Your task to perform on an android device: Open wifi settings Image 0: 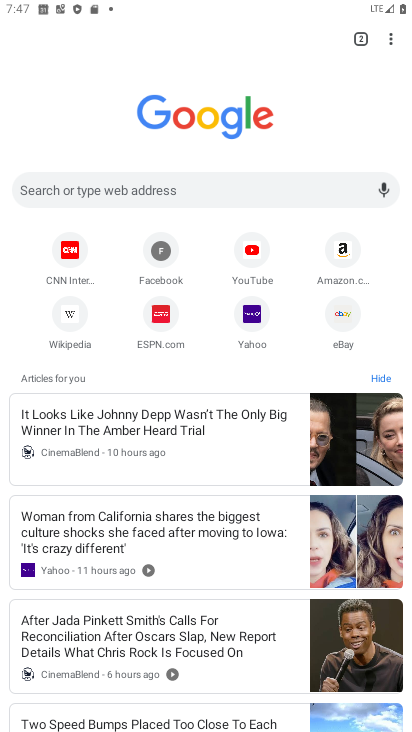
Step 0: press home button
Your task to perform on an android device: Open wifi settings Image 1: 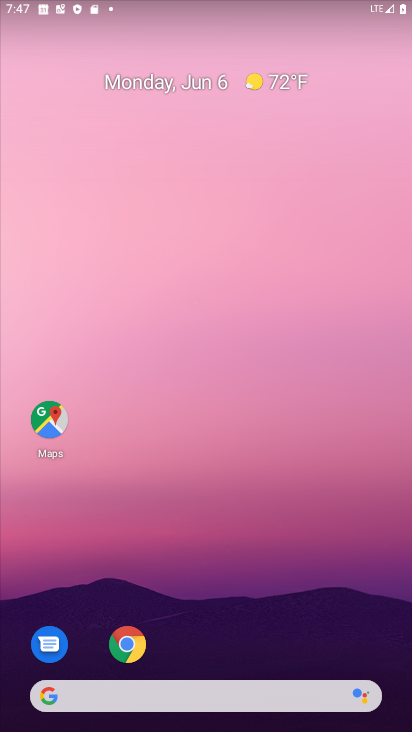
Step 1: drag from (260, 710) to (219, 261)
Your task to perform on an android device: Open wifi settings Image 2: 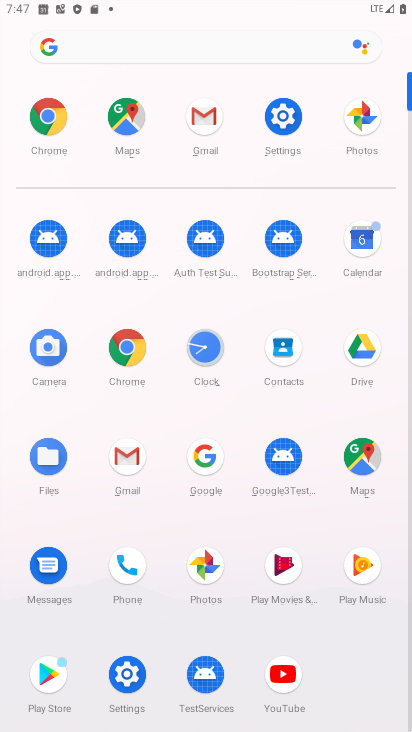
Step 2: click (277, 122)
Your task to perform on an android device: Open wifi settings Image 3: 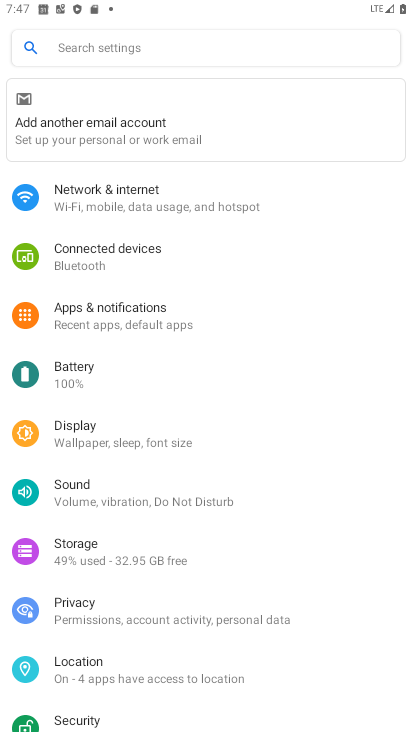
Step 3: click (117, 190)
Your task to perform on an android device: Open wifi settings Image 4: 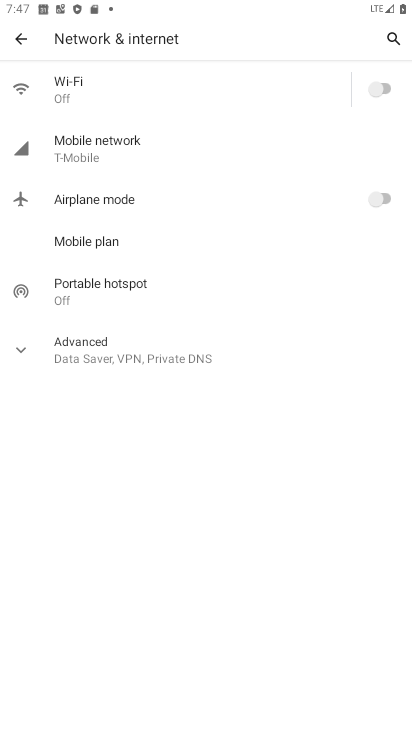
Step 4: click (125, 91)
Your task to perform on an android device: Open wifi settings Image 5: 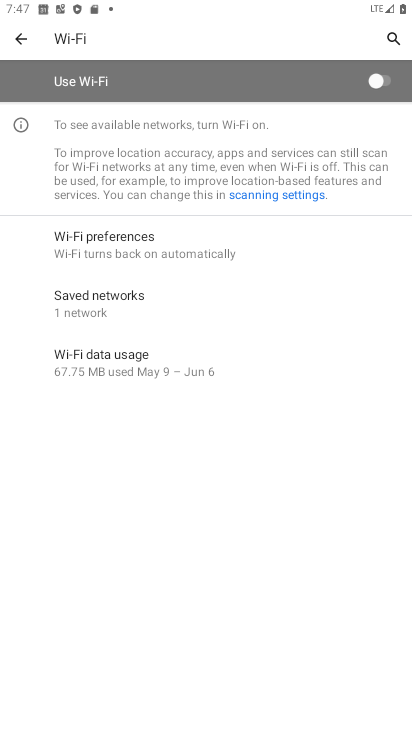
Step 5: press home button
Your task to perform on an android device: Open wifi settings Image 6: 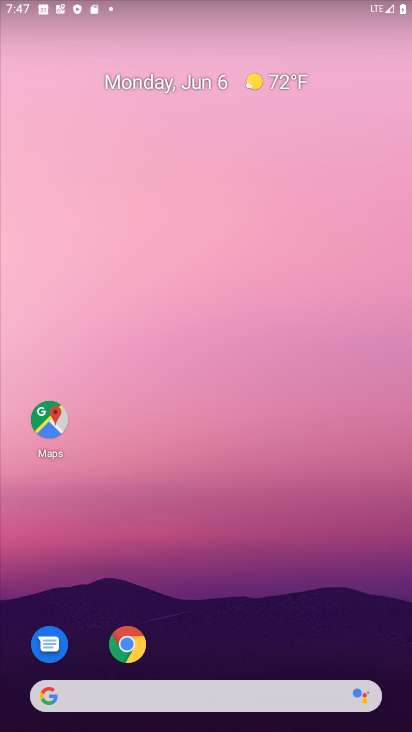
Step 6: drag from (246, 719) to (140, 246)
Your task to perform on an android device: Open wifi settings Image 7: 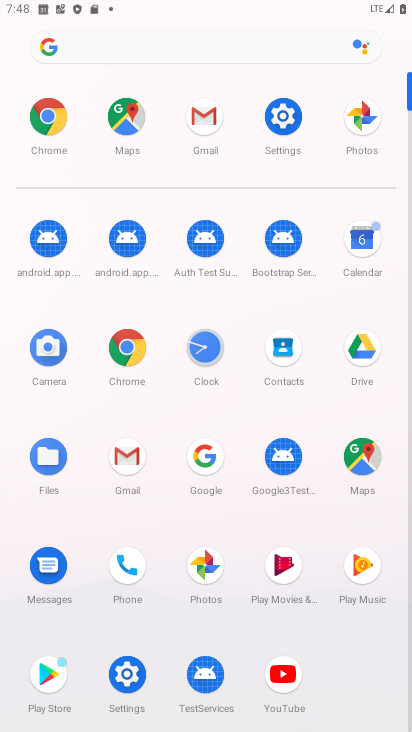
Step 7: click (133, 671)
Your task to perform on an android device: Open wifi settings Image 8: 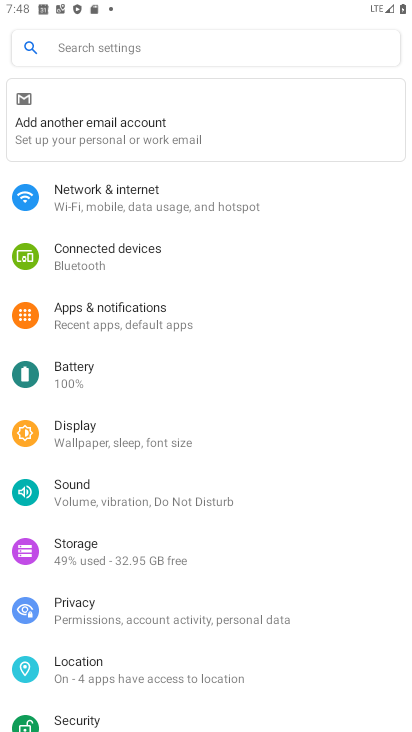
Step 8: click (118, 190)
Your task to perform on an android device: Open wifi settings Image 9: 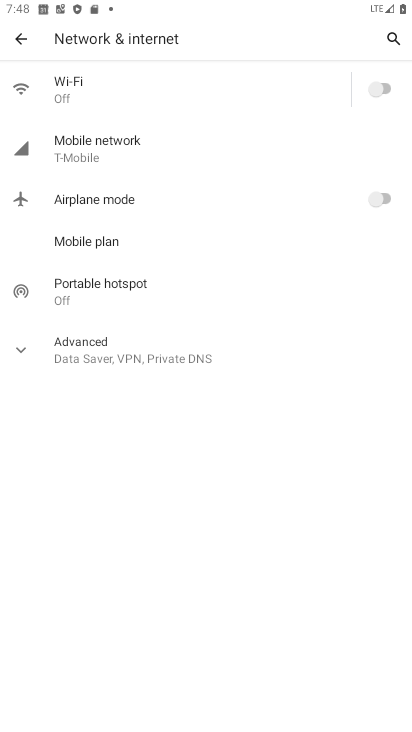
Step 9: click (101, 86)
Your task to perform on an android device: Open wifi settings Image 10: 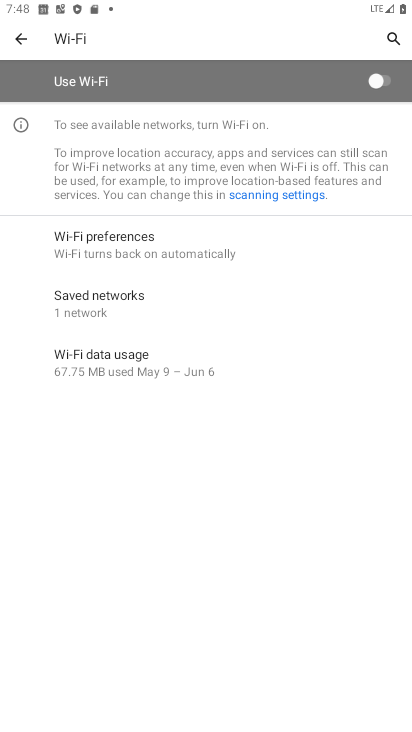
Step 10: task complete